Your task to perform on an android device: open app "Venmo" (install if not already installed) and enter user name: "bleedings@gmail.com" and password: "copied" Image 0: 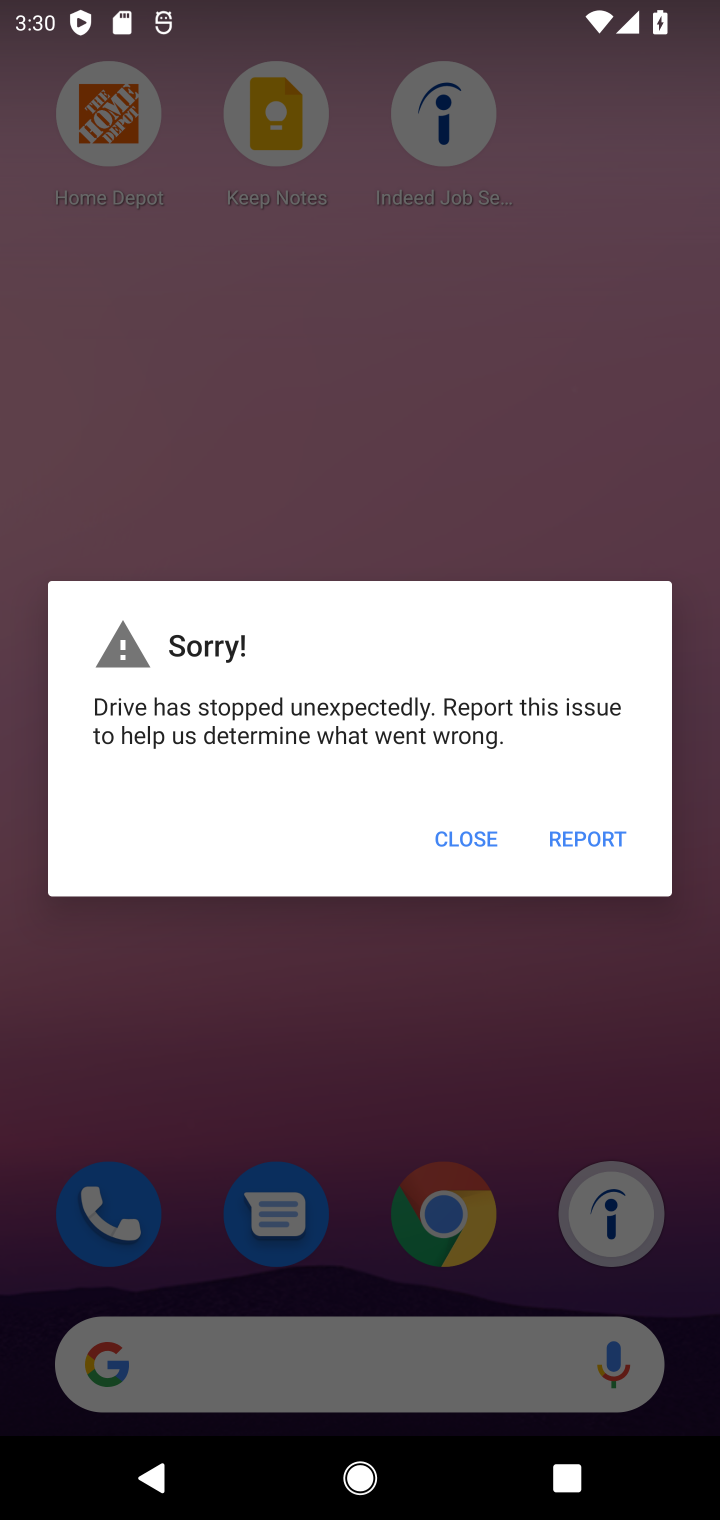
Step 0: click (490, 836)
Your task to perform on an android device: open app "Venmo" (install if not already installed) and enter user name: "bleedings@gmail.com" and password: "copied" Image 1: 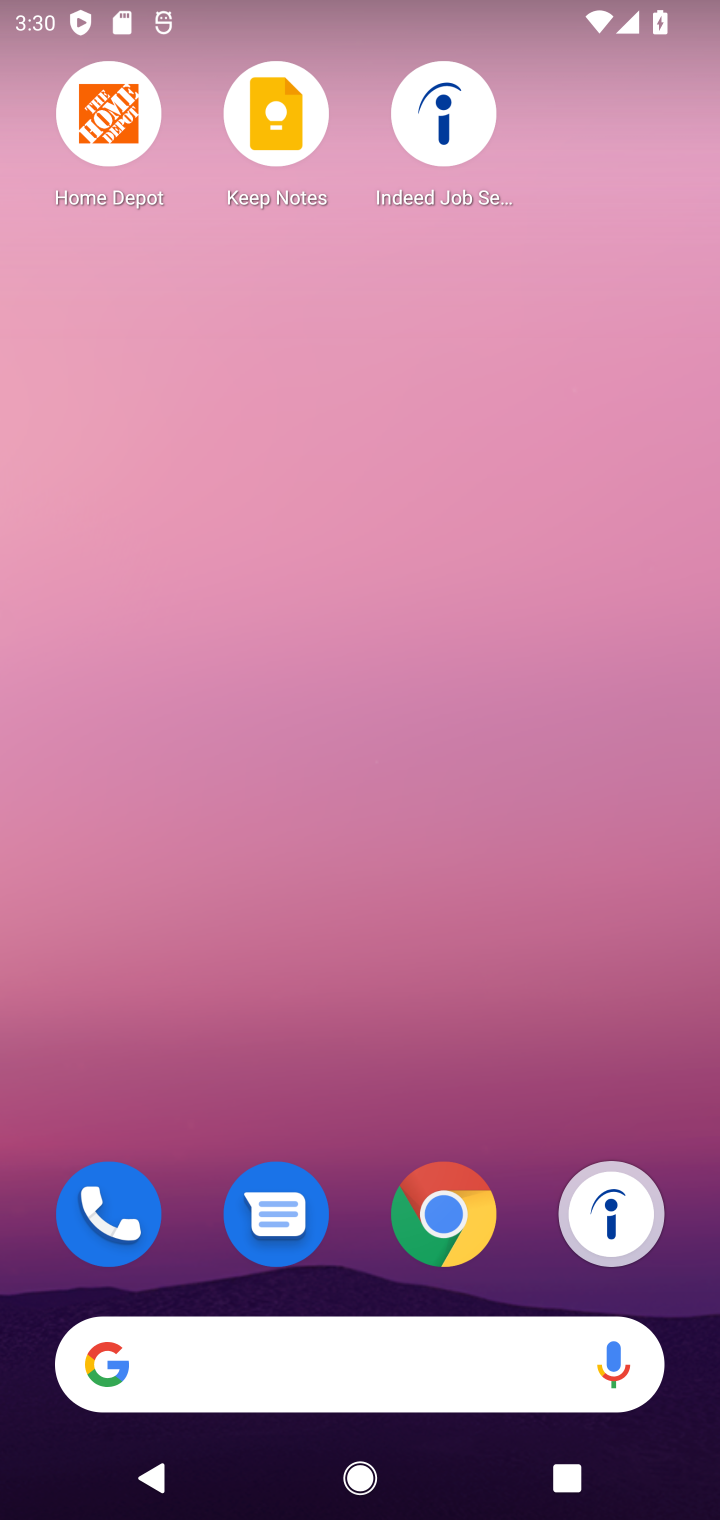
Step 1: drag from (603, 1377) to (606, 0)
Your task to perform on an android device: open app "Venmo" (install if not already installed) and enter user name: "bleedings@gmail.com" and password: "copied" Image 2: 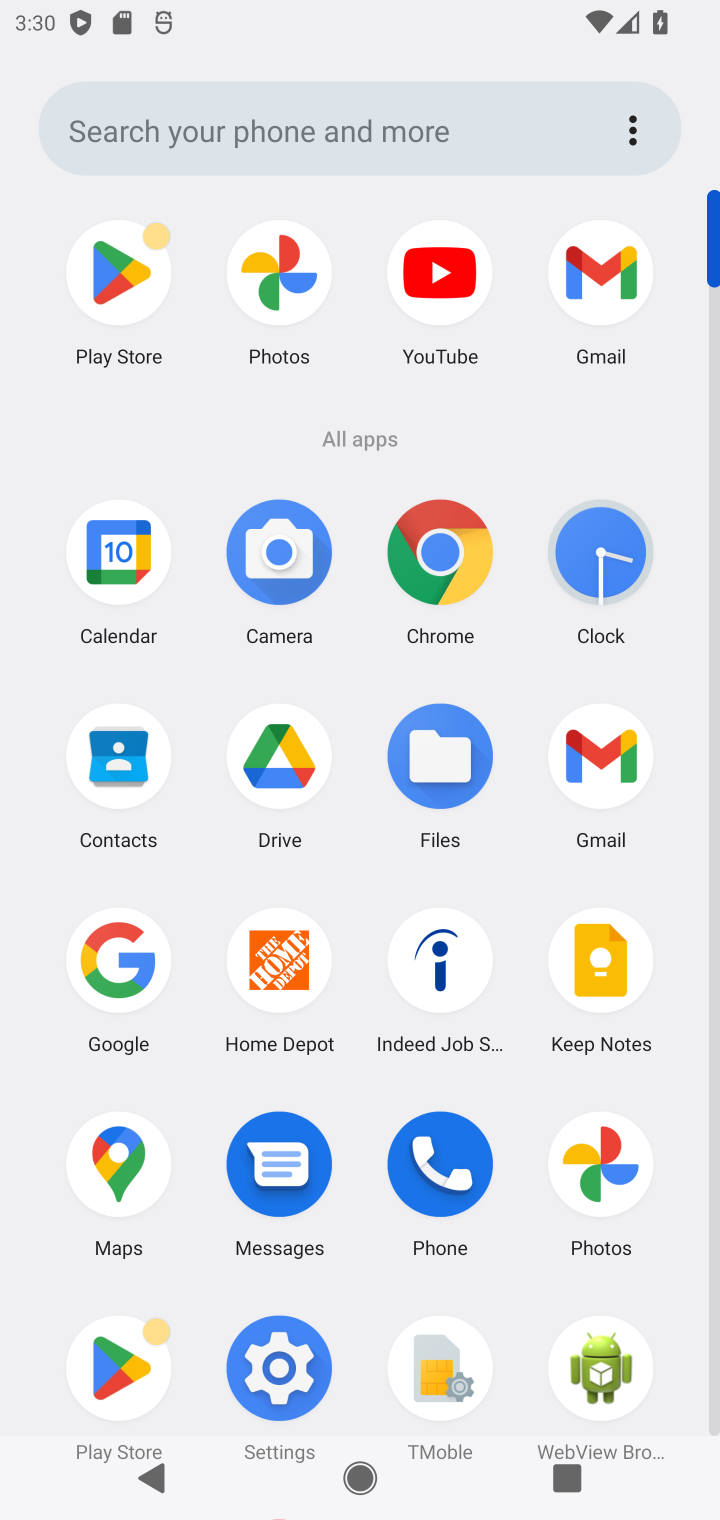
Step 2: click (127, 1365)
Your task to perform on an android device: open app "Venmo" (install if not already installed) and enter user name: "bleedings@gmail.com" and password: "copied" Image 3: 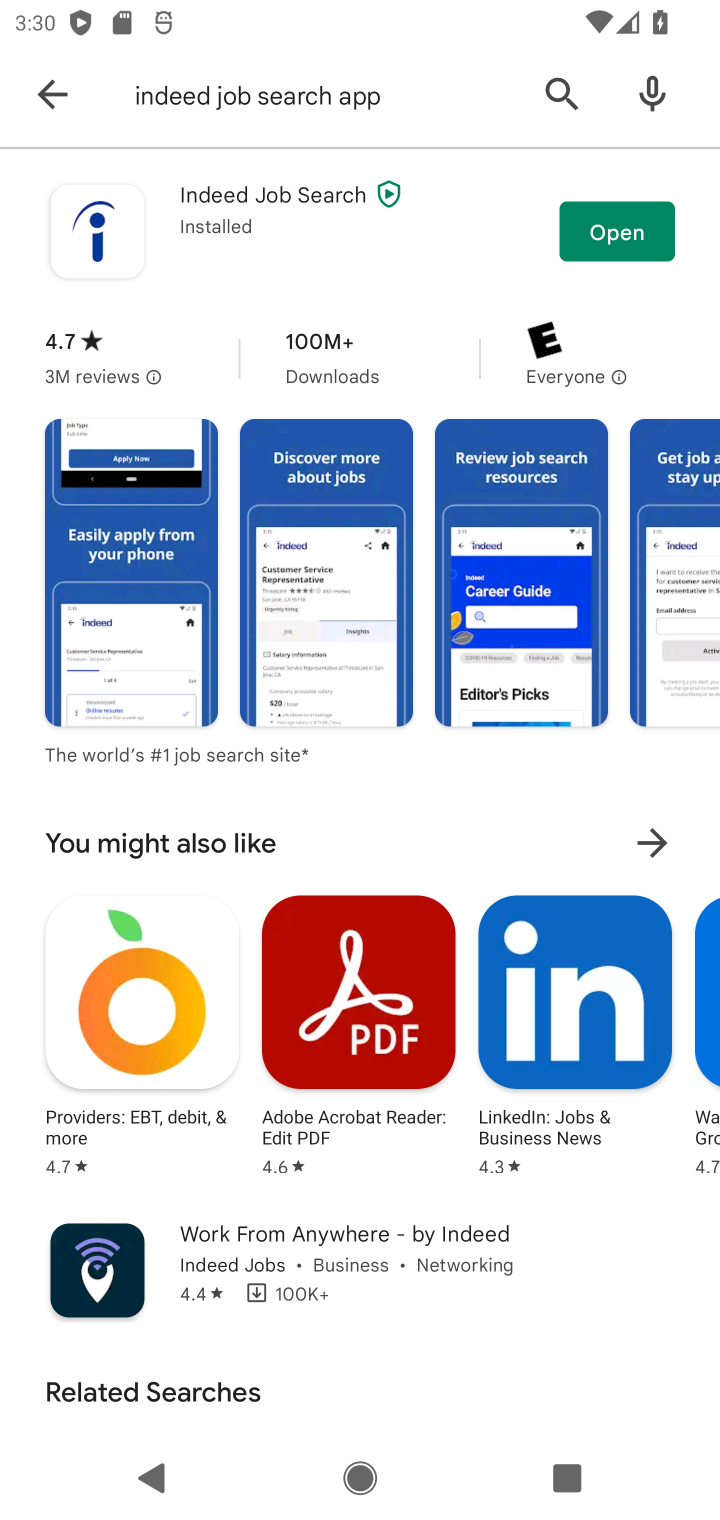
Step 3: click (406, 97)
Your task to perform on an android device: open app "Venmo" (install if not already installed) and enter user name: "bleedings@gmail.com" and password: "copied" Image 4: 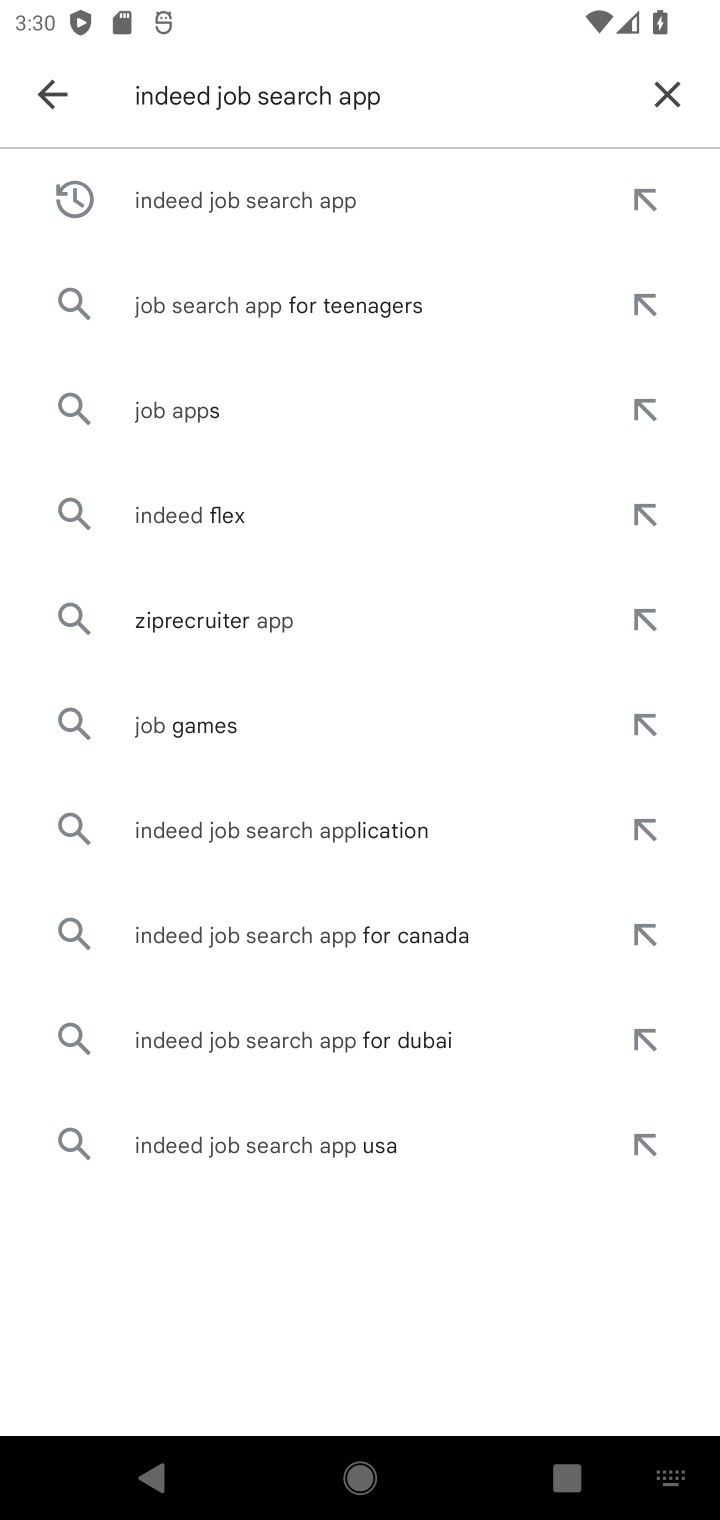
Step 4: click (672, 83)
Your task to perform on an android device: open app "Venmo" (install if not already installed) and enter user name: "bleedings@gmail.com" and password: "copied" Image 5: 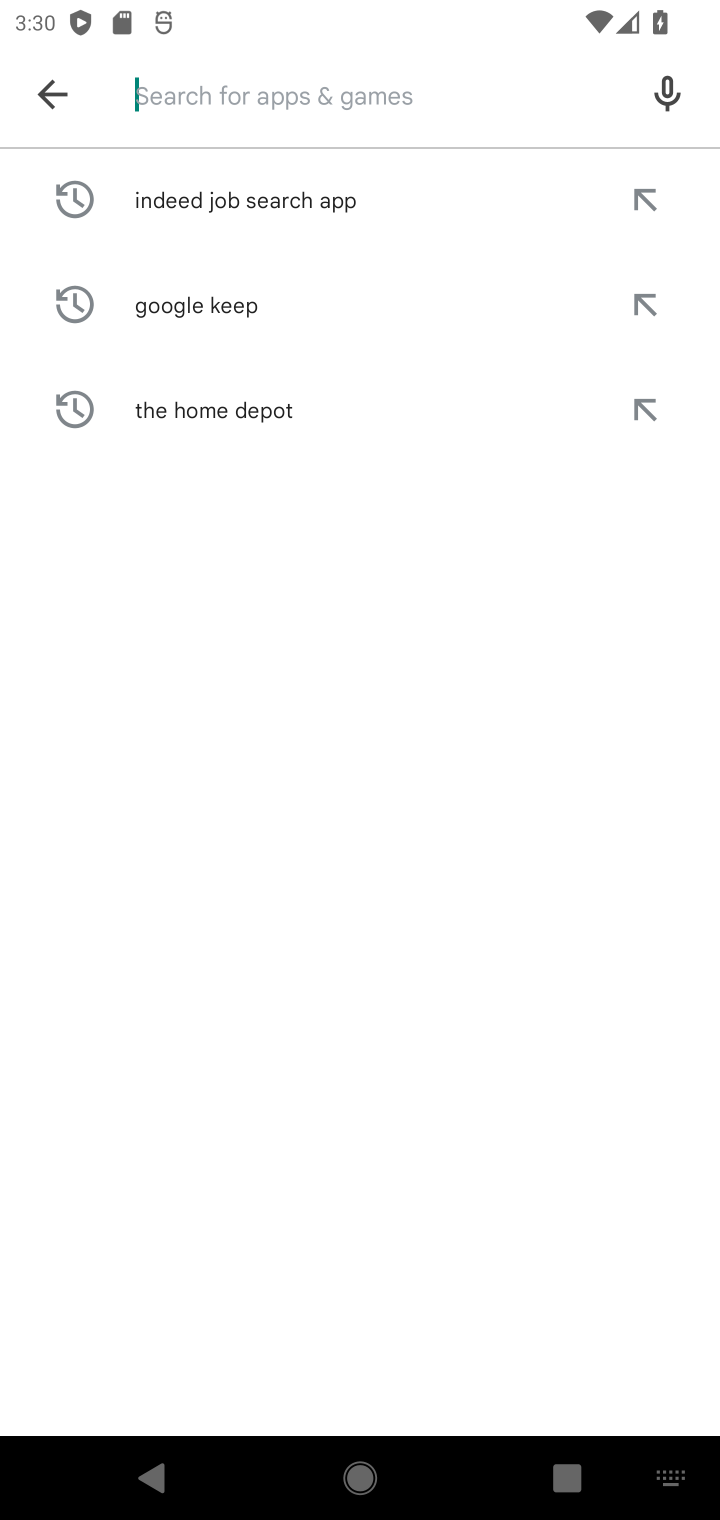
Step 5: type "venmo"
Your task to perform on an android device: open app "Venmo" (install if not already installed) and enter user name: "bleedings@gmail.com" and password: "copied" Image 6: 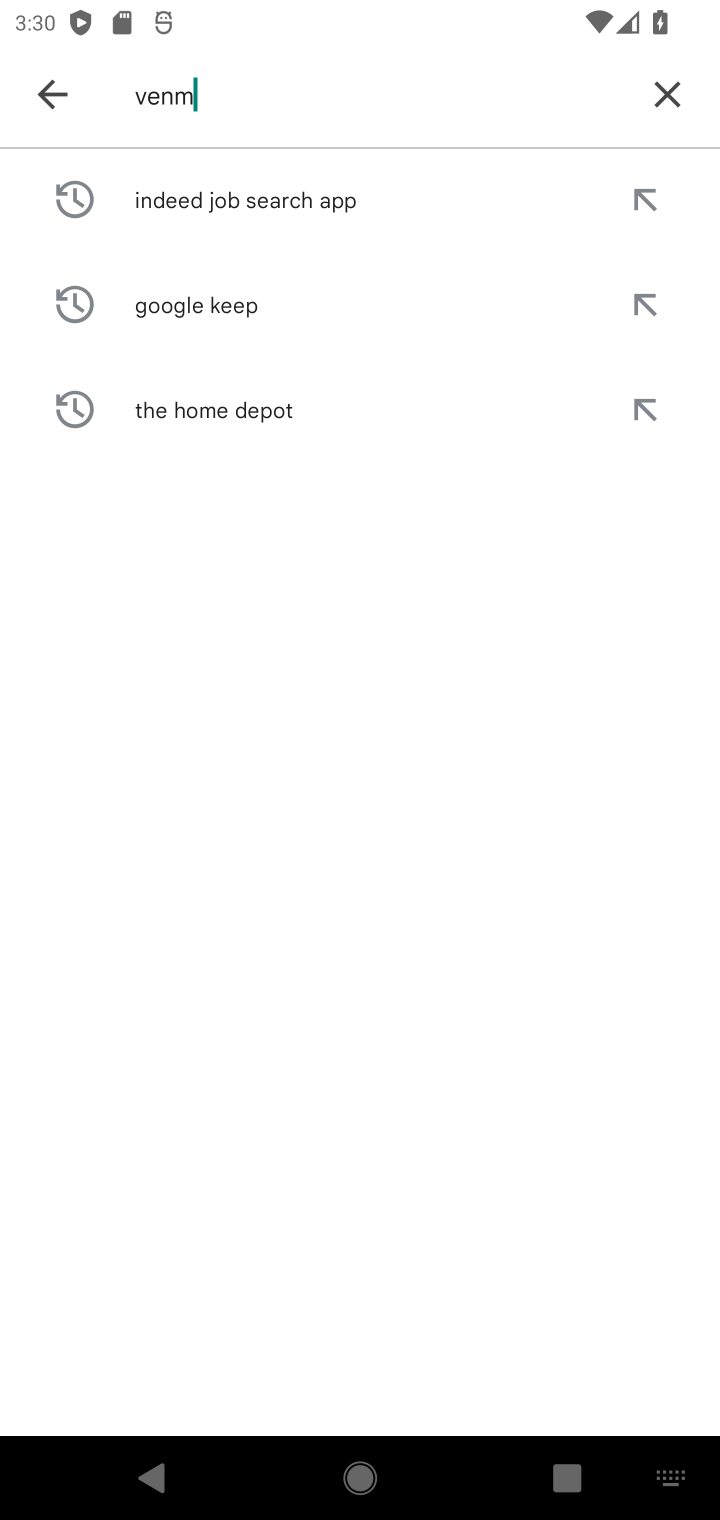
Step 6: type ""
Your task to perform on an android device: open app "Venmo" (install if not already installed) and enter user name: "bleedings@gmail.com" and password: "copied" Image 7: 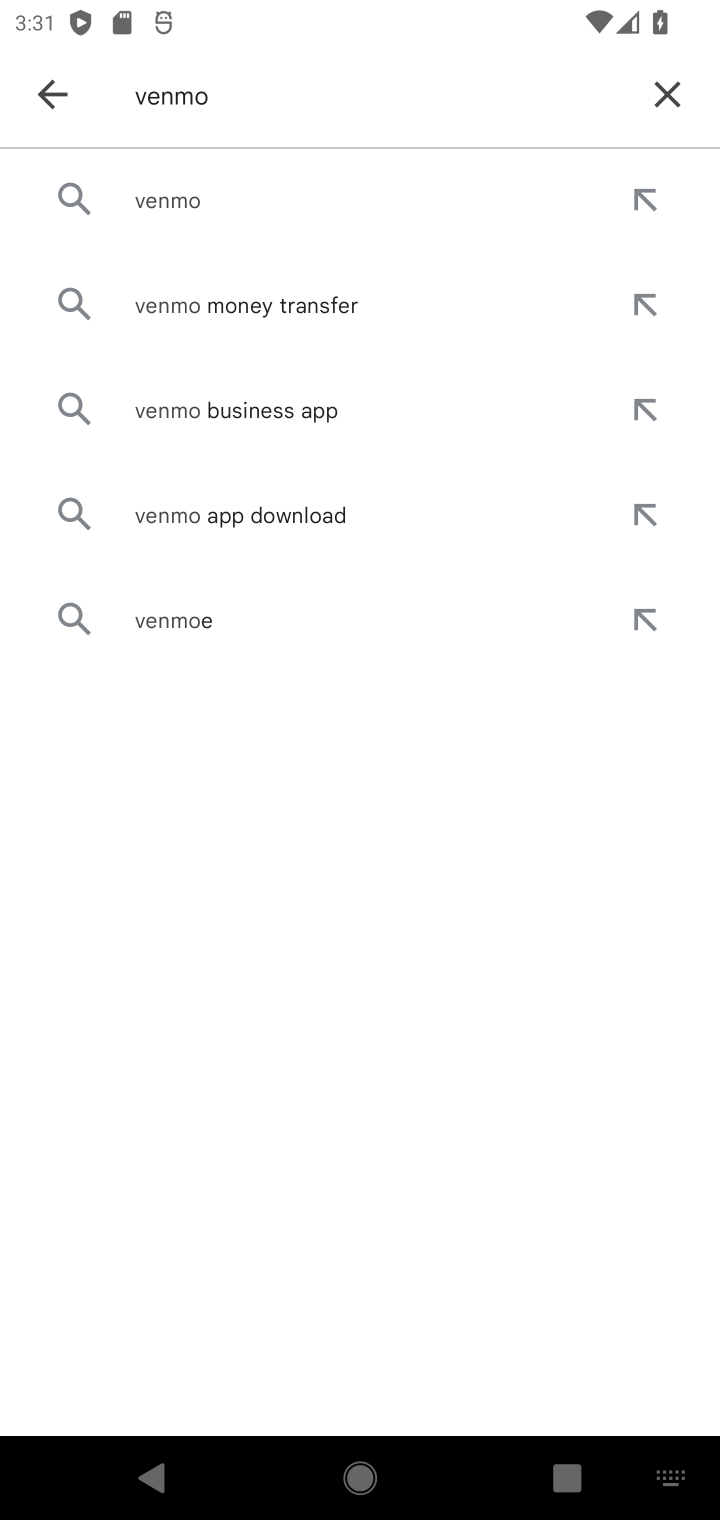
Step 7: click (320, 211)
Your task to perform on an android device: open app "Venmo" (install if not already installed) and enter user name: "bleedings@gmail.com" and password: "copied" Image 8: 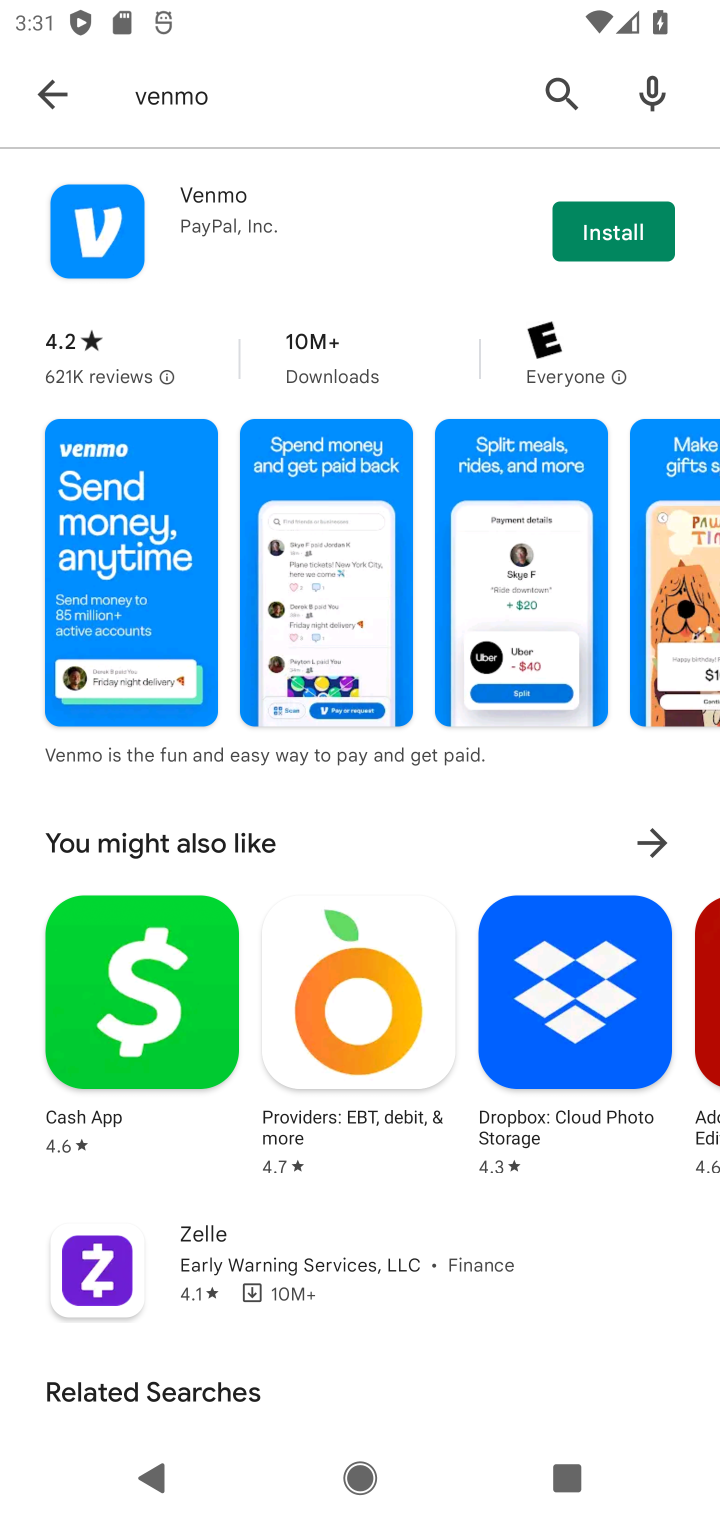
Step 8: click (607, 219)
Your task to perform on an android device: open app "Venmo" (install if not already installed) and enter user name: "bleedings@gmail.com" and password: "copied" Image 9: 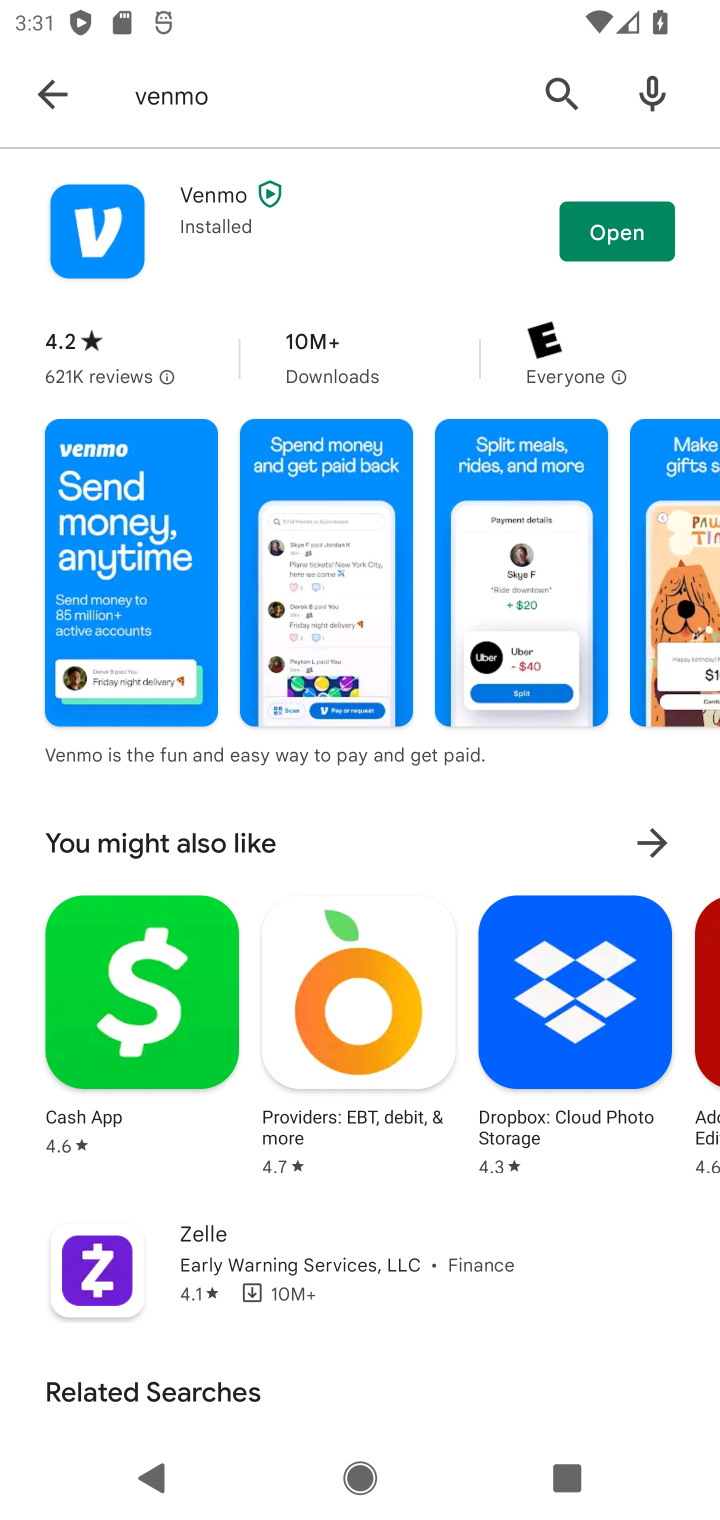
Step 9: click (607, 219)
Your task to perform on an android device: open app "Venmo" (install if not already installed) and enter user name: "bleedings@gmail.com" and password: "copied" Image 10: 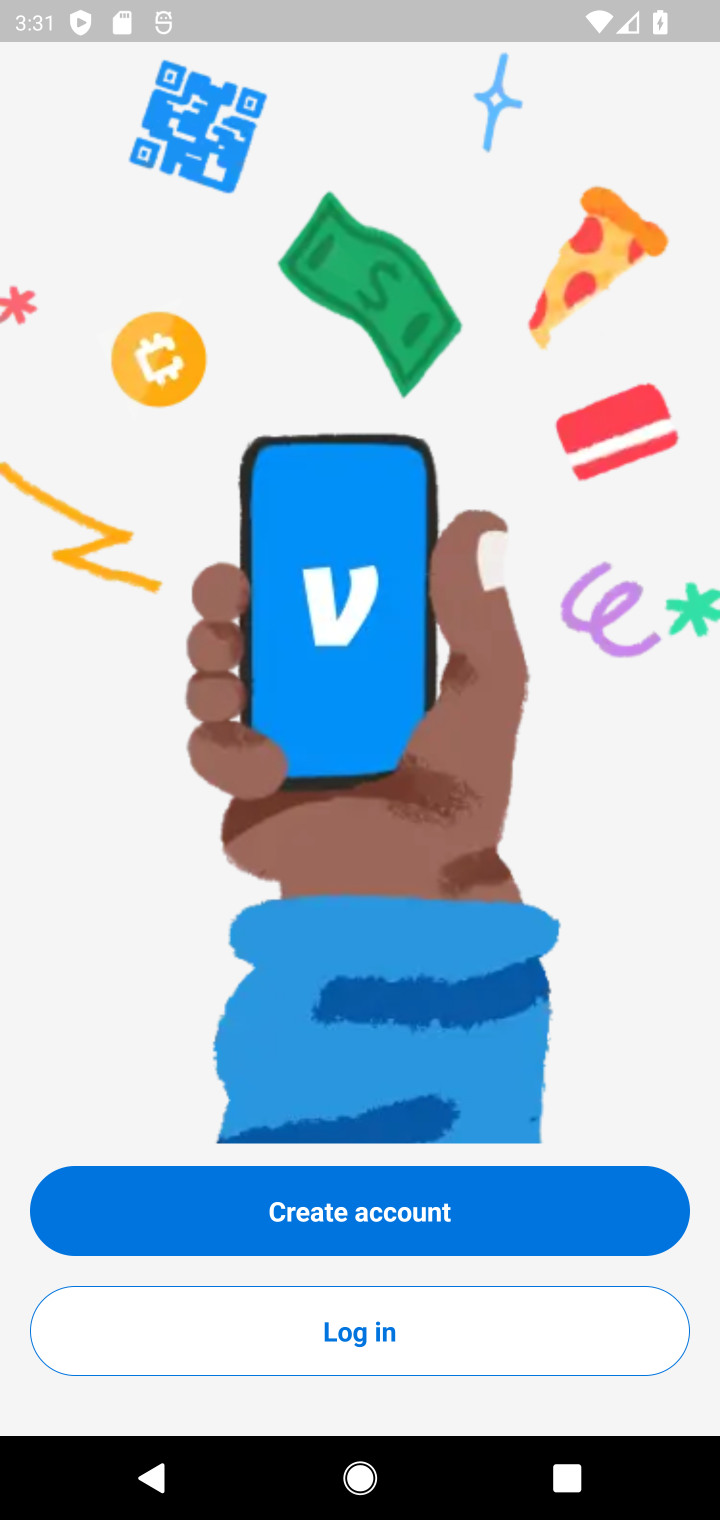
Step 10: click (509, 1341)
Your task to perform on an android device: open app "Venmo" (install if not already installed) and enter user name: "bleedings@gmail.com" and password: "copied" Image 11: 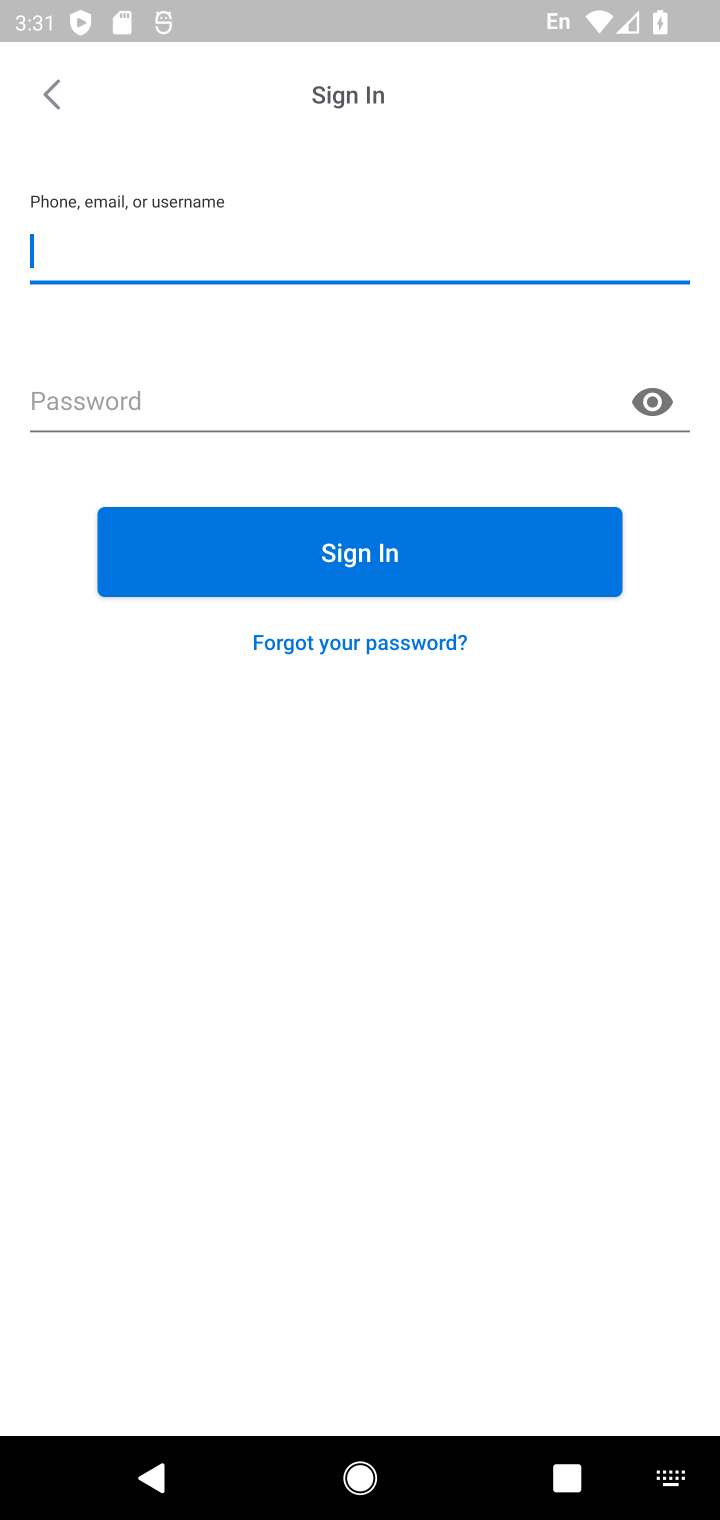
Step 11: type "bleedings@gmail.com"
Your task to perform on an android device: open app "Venmo" (install if not already installed) and enter user name: "bleedings@gmail.com" and password: "copied" Image 12: 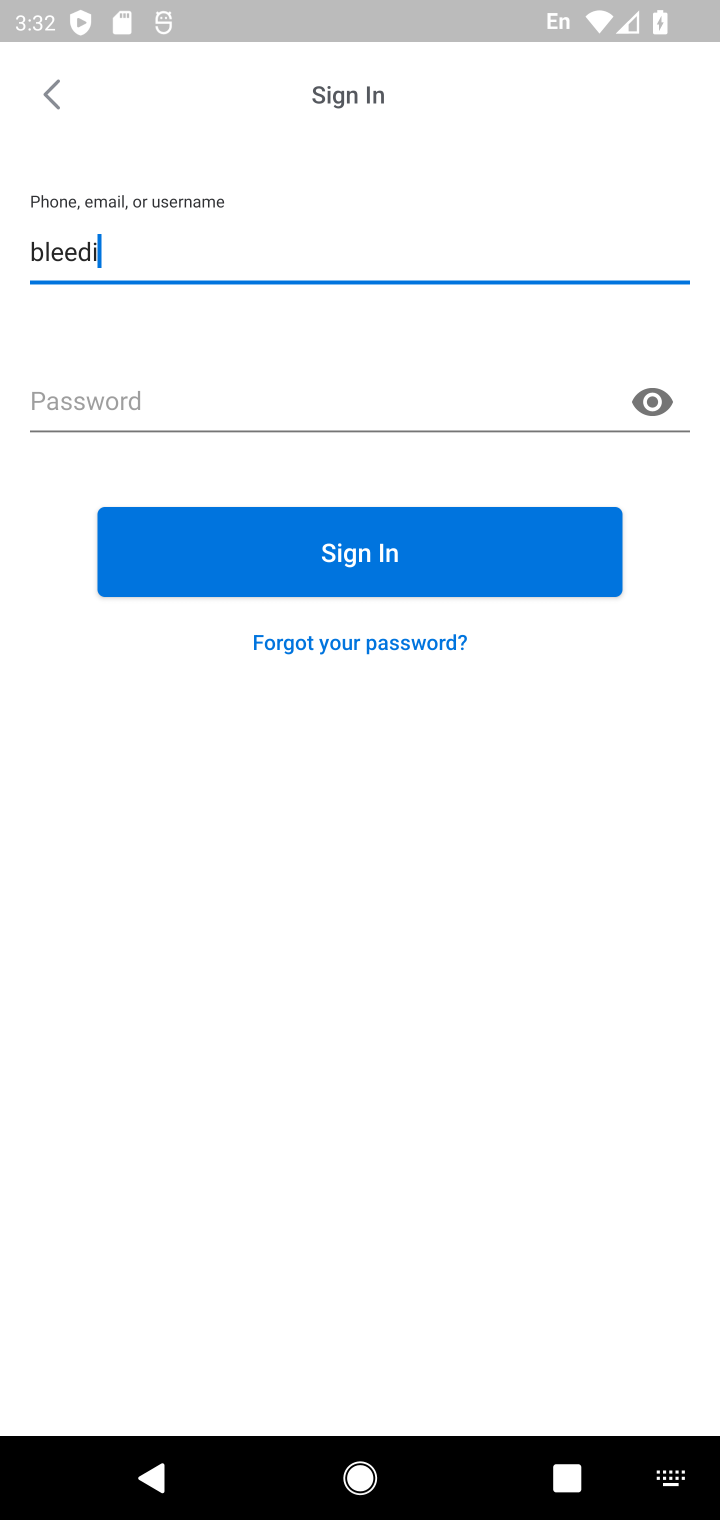
Step 12: type ""
Your task to perform on an android device: open app "Venmo" (install if not already installed) and enter user name: "bleedings@gmail.com" and password: "copied" Image 13: 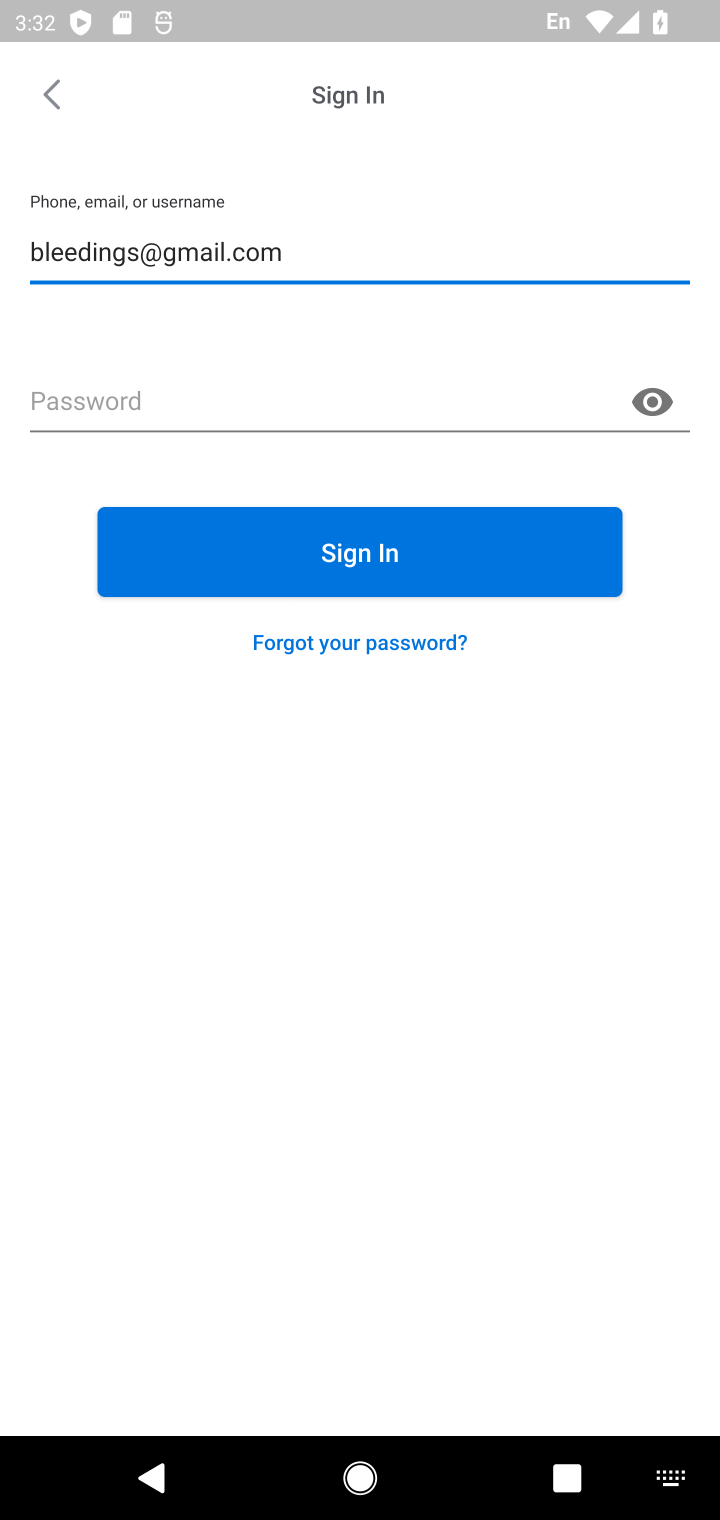
Step 13: click (463, 387)
Your task to perform on an android device: open app "Venmo" (install if not already installed) and enter user name: "bleedings@gmail.com" and password: "copied" Image 14: 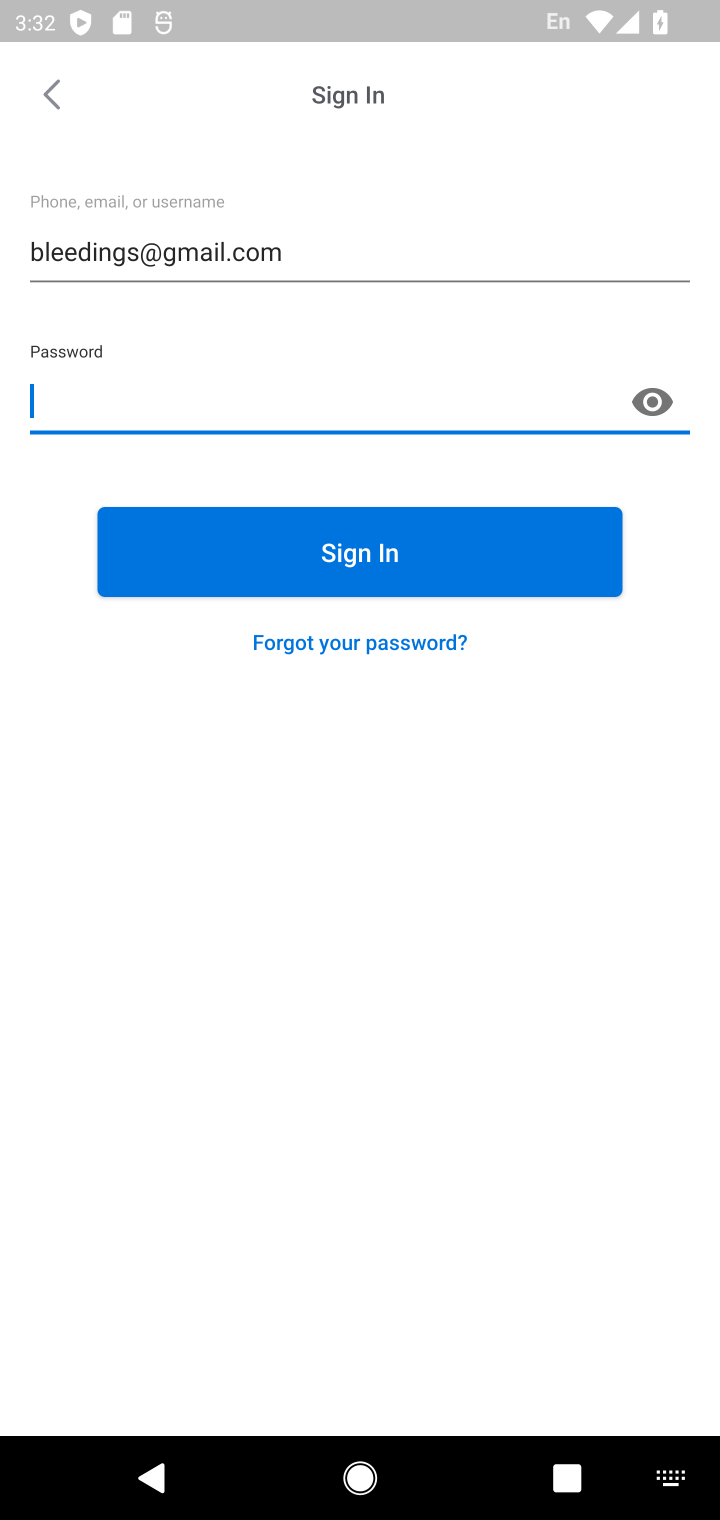
Step 14: click (333, 394)
Your task to perform on an android device: open app "Venmo" (install if not already installed) and enter user name: "bleedings@gmail.com" and password: "copied" Image 15: 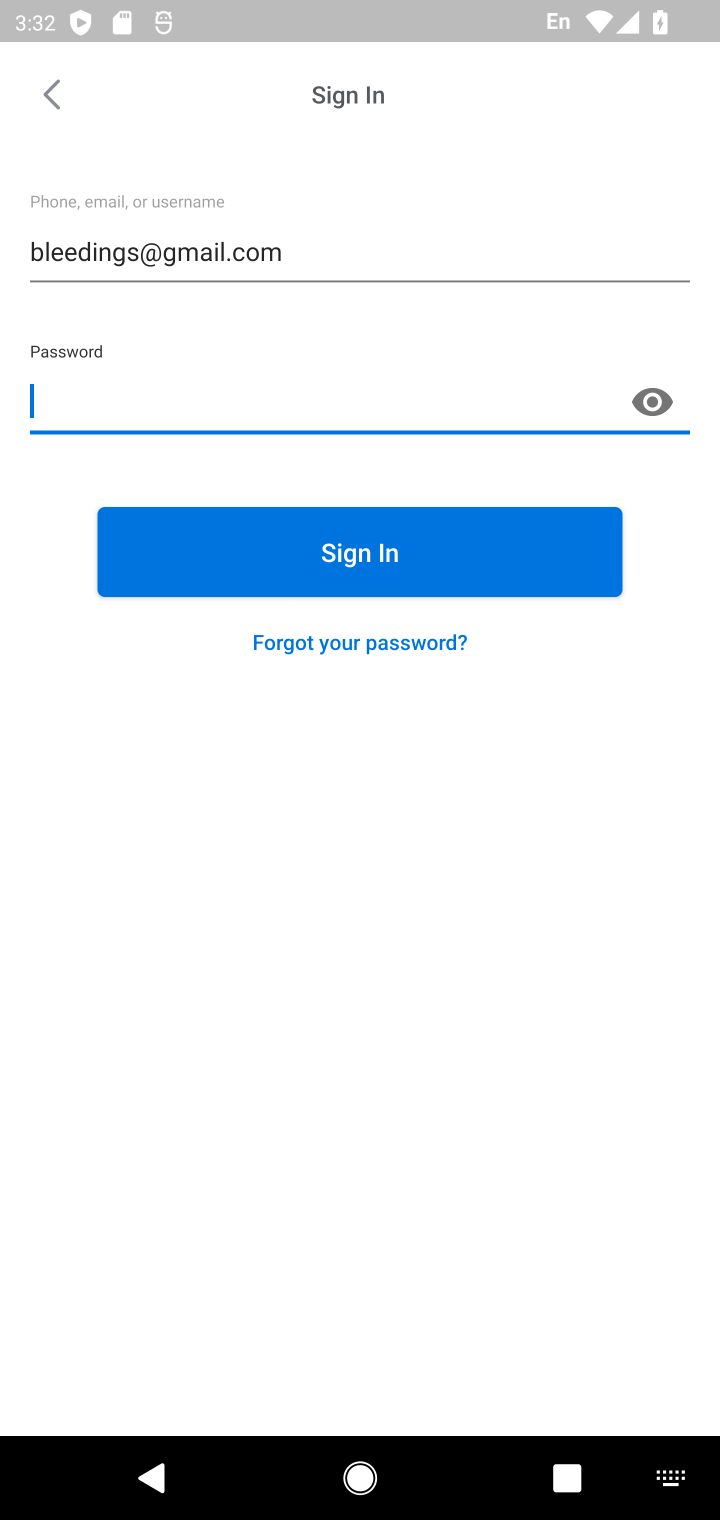
Step 15: type "copied"
Your task to perform on an android device: open app "Venmo" (install if not already installed) and enter user name: "bleedings@gmail.com" and password: "copied" Image 16: 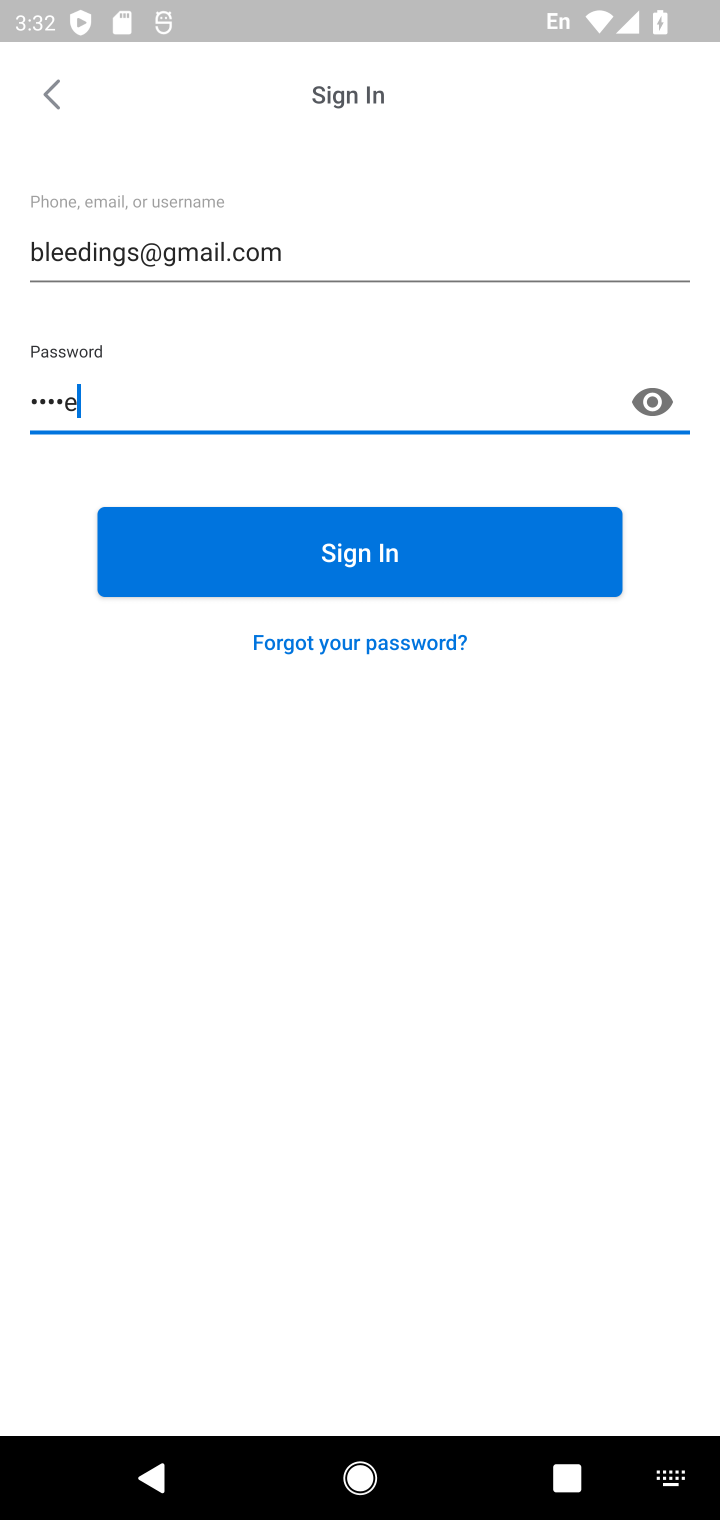
Step 16: type ""
Your task to perform on an android device: open app "Venmo" (install if not already installed) and enter user name: "bleedings@gmail.com" and password: "copied" Image 17: 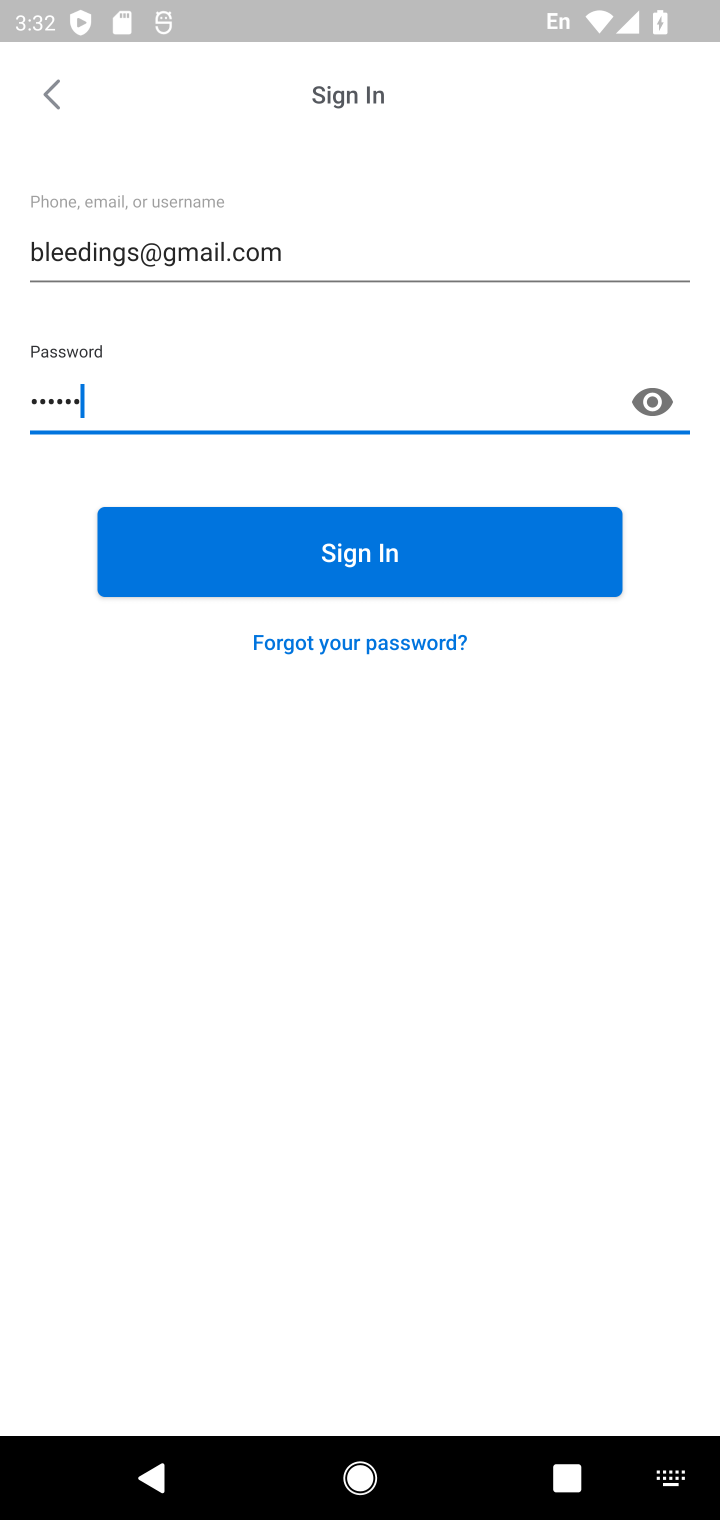
Step 17: click (335, 562)
Your task to perform on an android device: open app "Venmo" (install if not already installed) and enter user name: "bleedings@gmail.com" and password: "copied" Image 18: 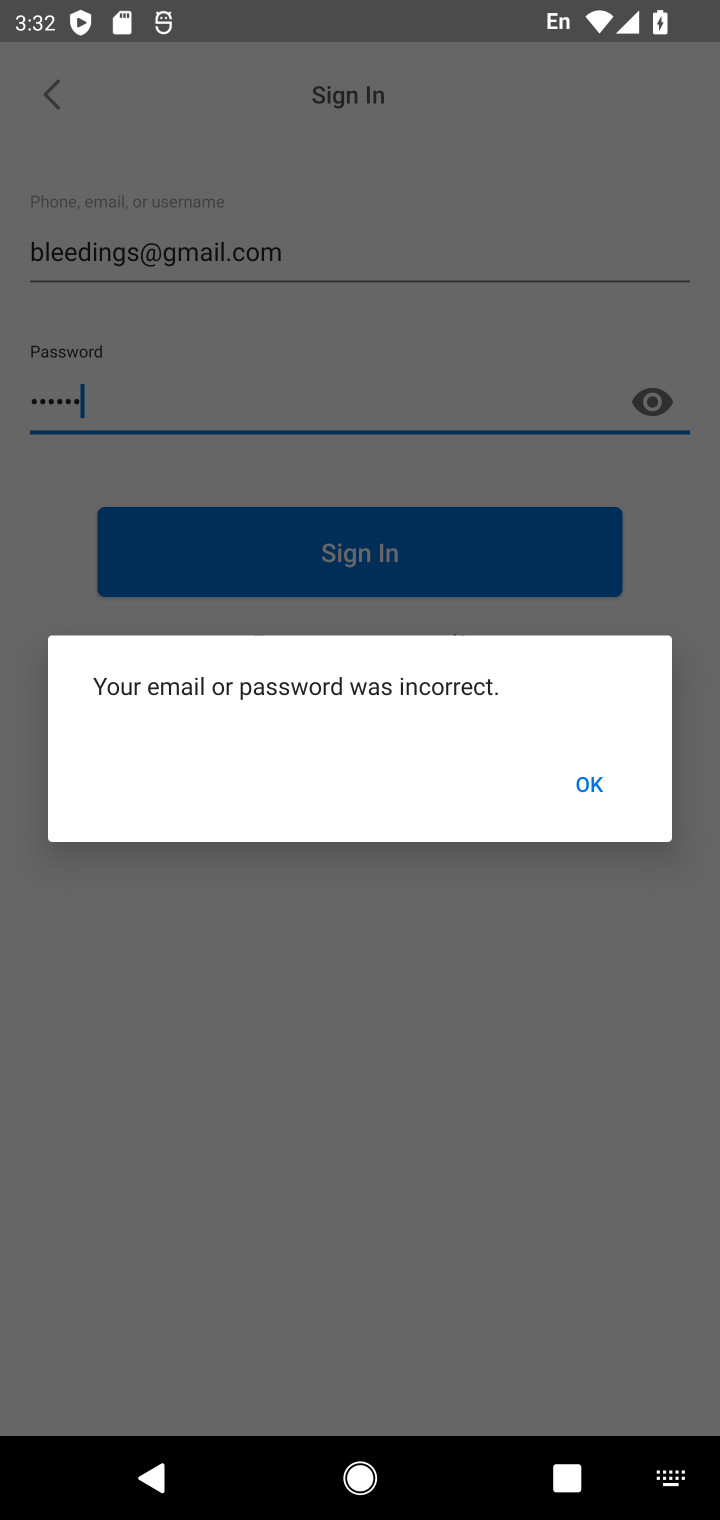
Step 18: task complete